Your task to perform on an android device: Check the weather Image 0: 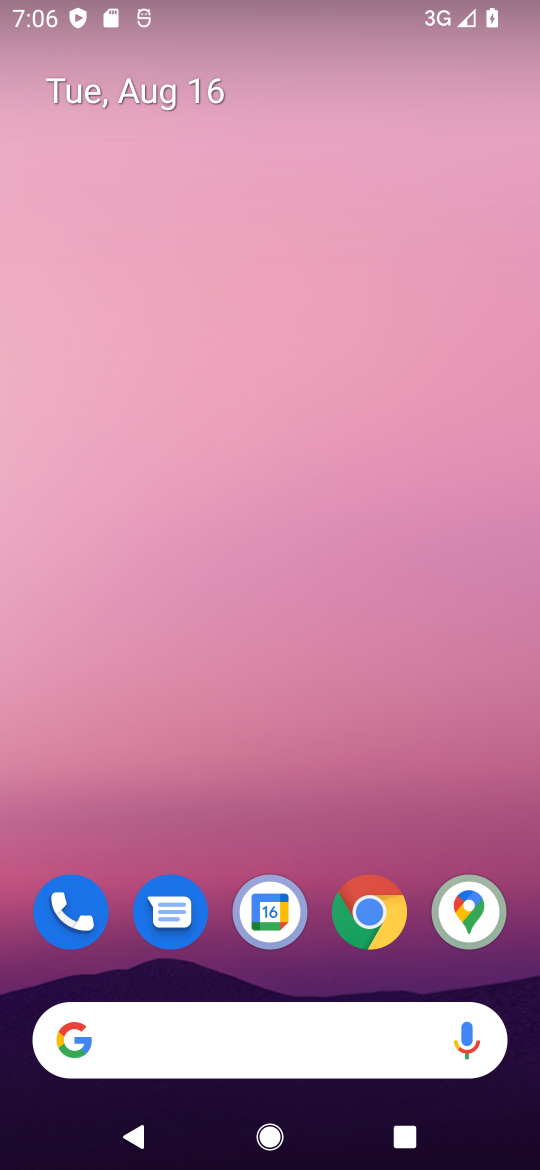
Step 0: click (185, 1050)
Your task to perform on an android device: Check the weather Image 1: 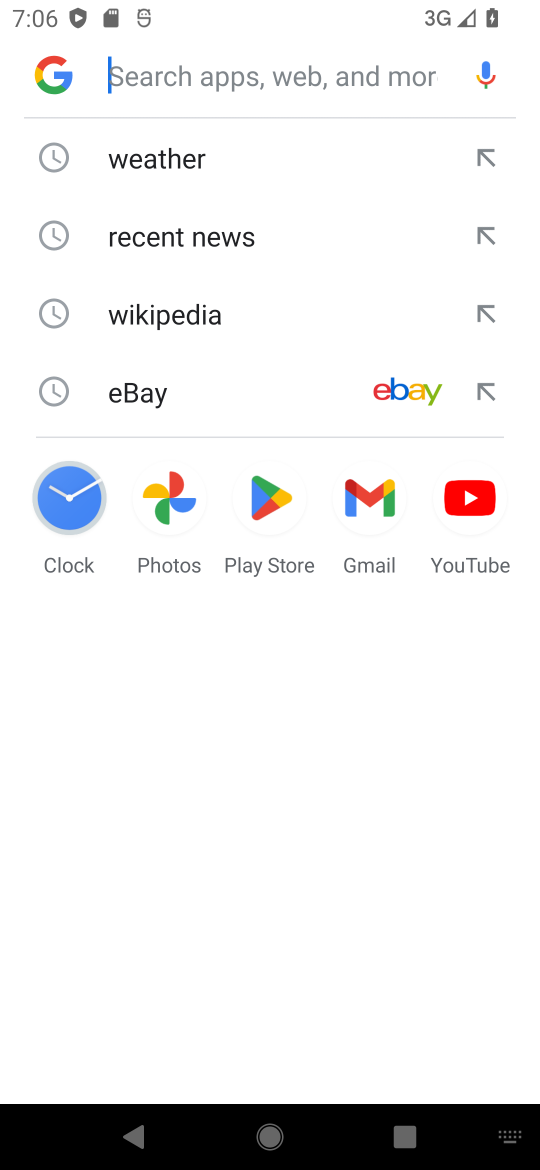
Step 1: click (152, 150)
Your task to perform on an android device: Check the weather Image 2: 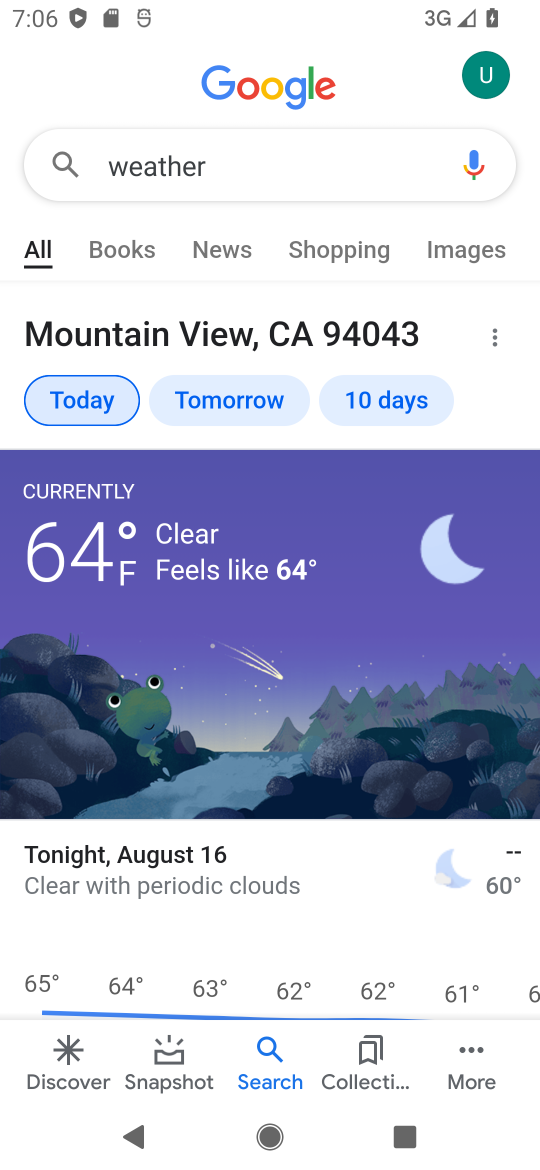
Step 2: task complete